Your task to perform on an android device: Open the phone app and click the voicemail tab. Image 0: 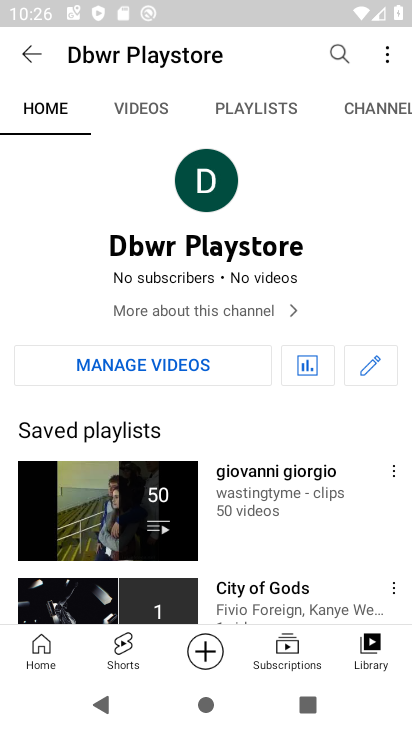
Step 0: press home button
Your task to perform on an android device: Open the phone app and click the voicemail tab. Image 1: 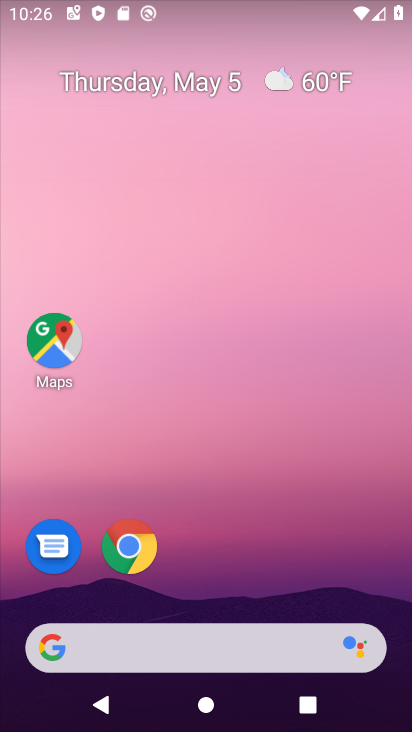
Step 1: drag from (226, 587) to (218, 89)
Your task to perform on an android device: Open the phone app and click the voicemail tab. Image 2: 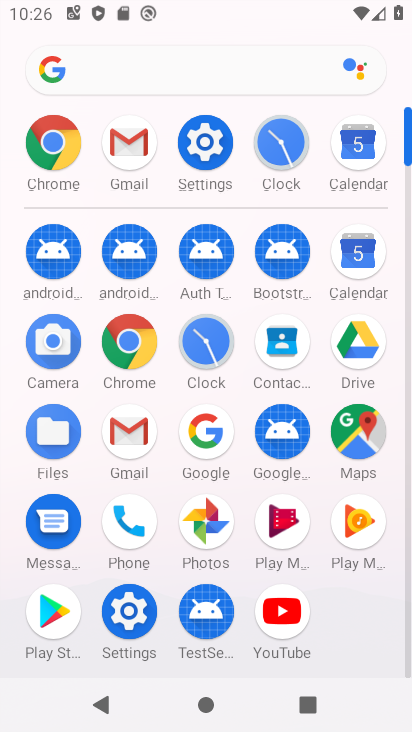
Step 2: click (129, 526)
Your task to perform on an android device: Open the phone app and click the voicemail tab. Image 3: 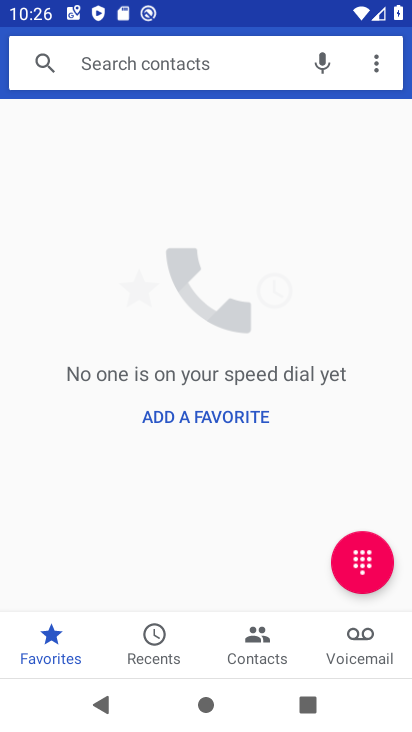
Step 3: click (342, 637)
Your task to perform on an android device: Open the phone app and click the voicemail tab. Image 4: 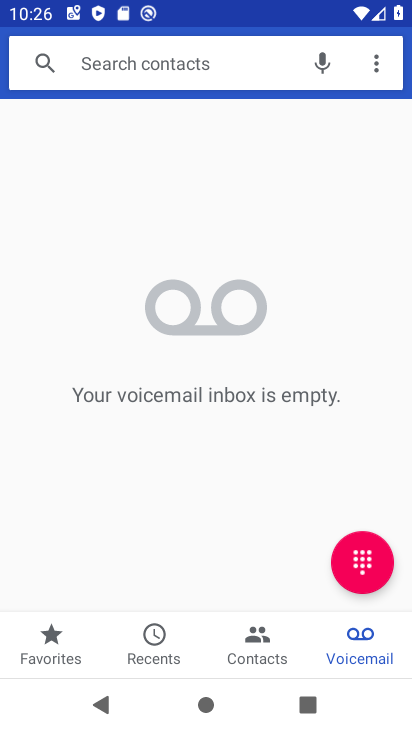
Step 4: task complete